Your task to perform on an android device: Go to calendar. Show me events next week Image 0: 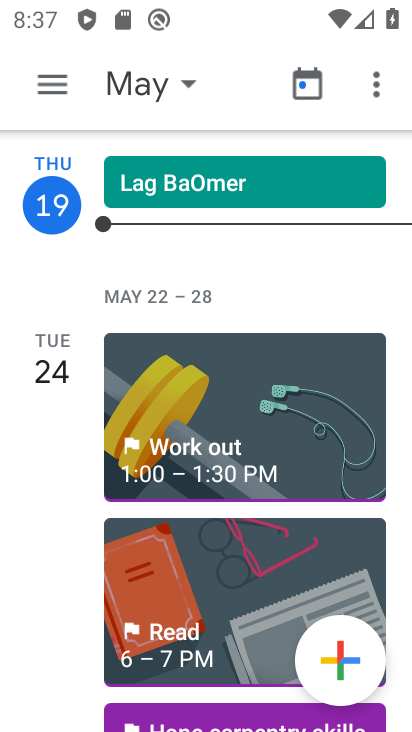
Step 0: click (122, 83)
Your task to perform on an android device: Go to calendar. Show me events next week Image 1: 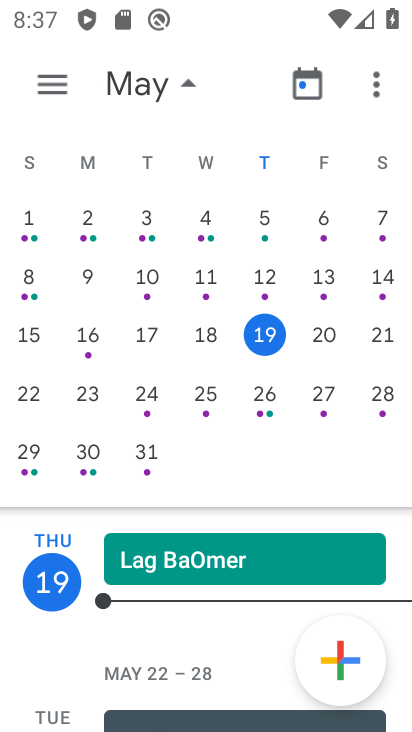
Step 1: click (132, 88)
Your task to perform on an android device: Go to calendar. Show me events next week Image 2: 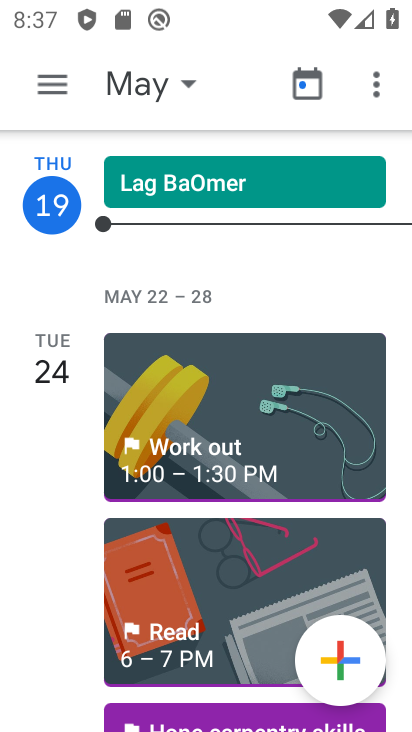
Step 2: task complete